Your task to perform on an android device: turn off airplane mode Image 0: 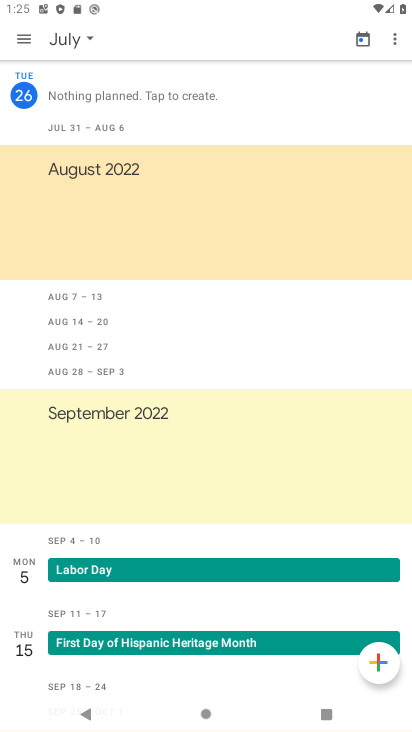
Step 0: press home button
Your task to perform on an android device: turn off airplane mode Image 1: 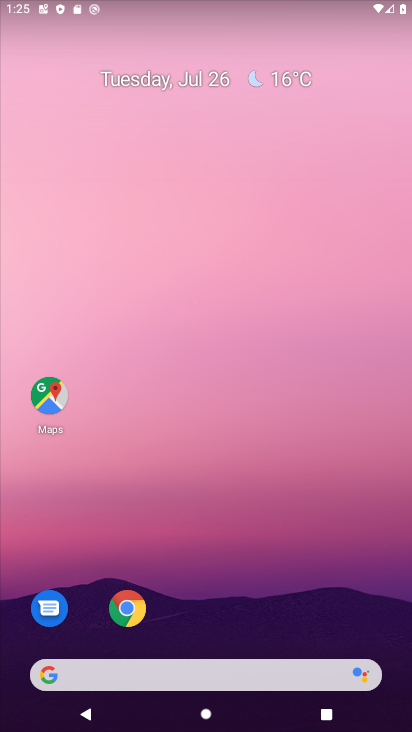
Step 1: drag from (201, 643) to (146, 62)
Your task to perform on an android device: turn off airplane mode Image 2: 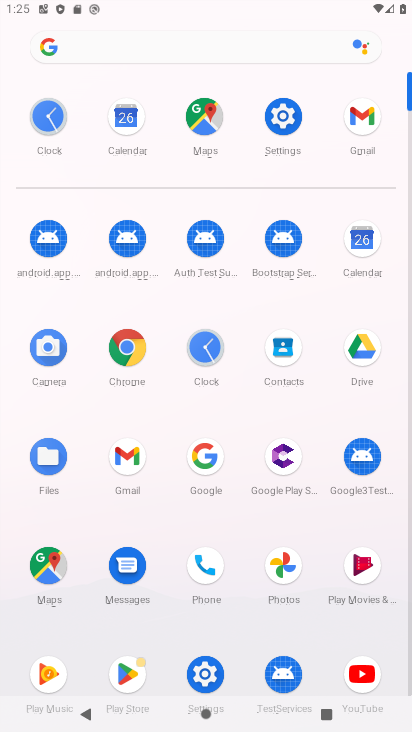
Step 2: click (267, 124)
Your task to perform on an android device: turn off airplane mode Image 3: 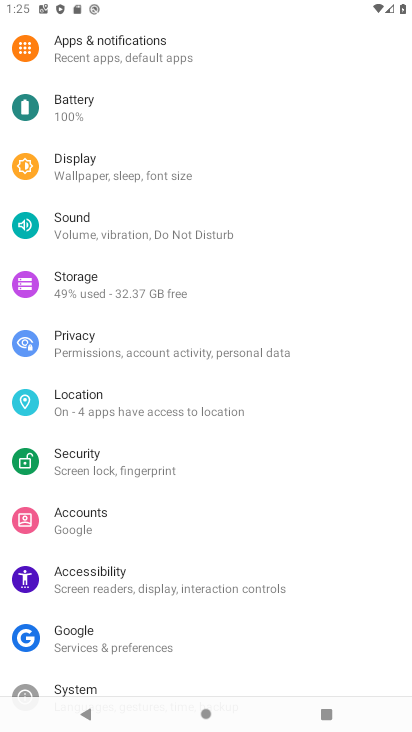
Step 3: drag from (222, 88) to (213, 211)
Your task to perform on an android device: turn off airplane mode Image 4: 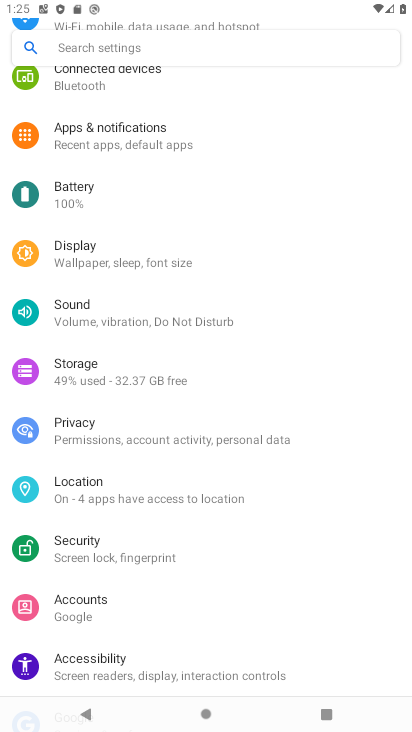
Step 4: drag from (188, 157) to (99, 721)
Your task to perform on an android device: turn off airplane mode Image 5: 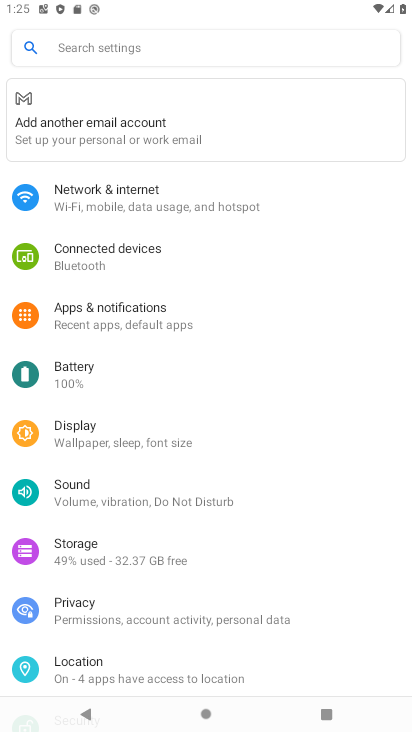
Step 5: click (111, 221)
Your task to perform on an android device: turn off airplane mode Image 6: 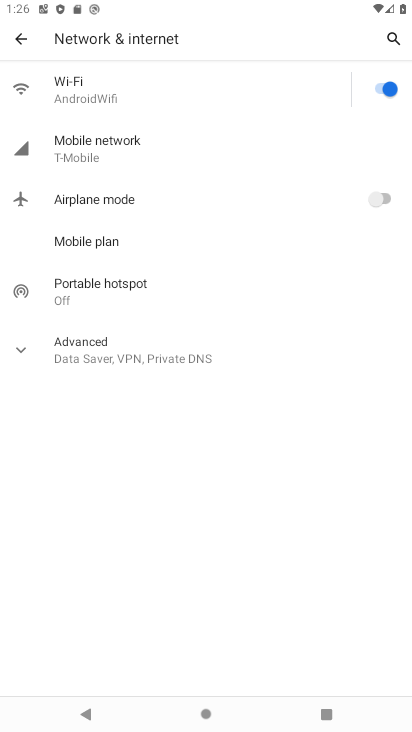
Step 6: task complete